Your task to perform on an android device: Show me recent news Image 0: 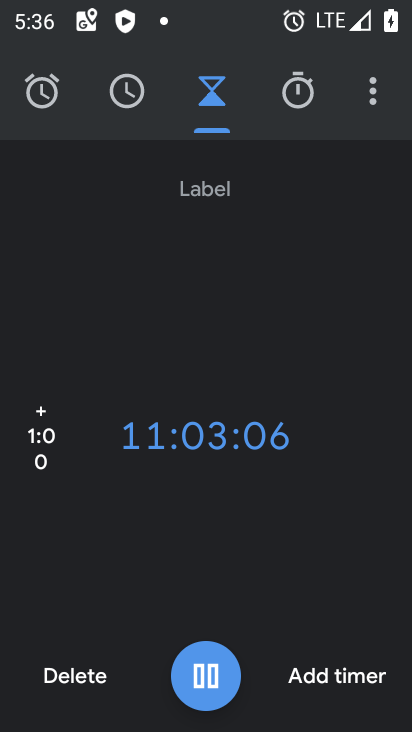
Step 0: press home button
Your task to perform on an android device: Show me recent news Image 1: 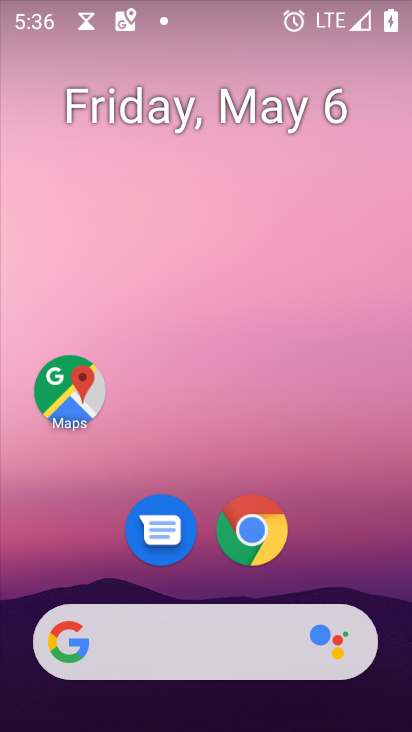
Step 1: click (72, 640)
Your task to perform on an android device: Show me recent news Image 2: 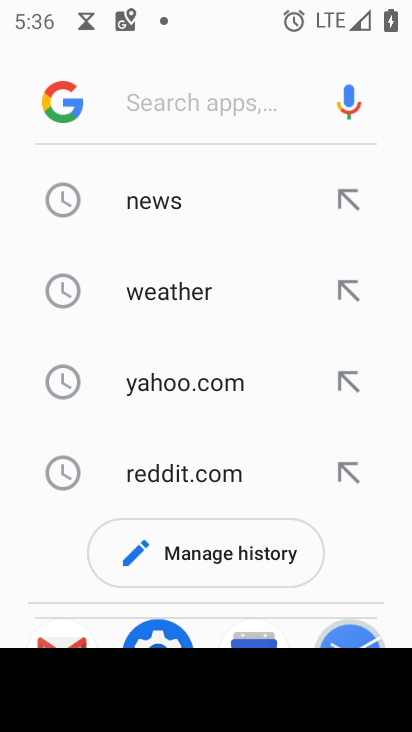
Step 2: click (175, 183)
Your task to perform on an android device: Show me recent news Image 3: 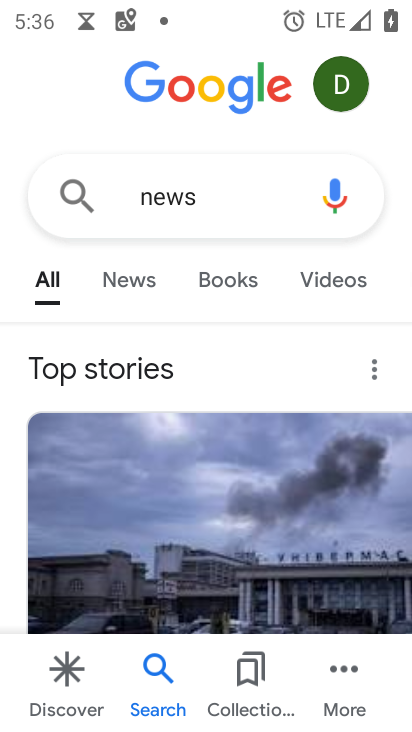
Step 3: click (142, 281)
Your task to perform on an android device: Show me recent news Image 4: 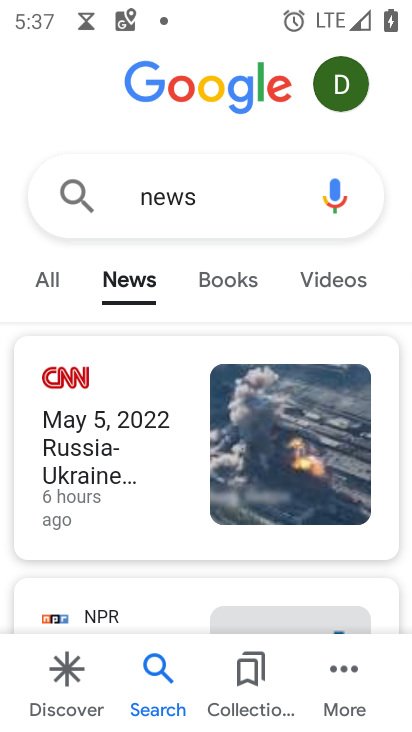
Step 4: task complete